Your task to perform on an android device: Go to Android settings Image 0: 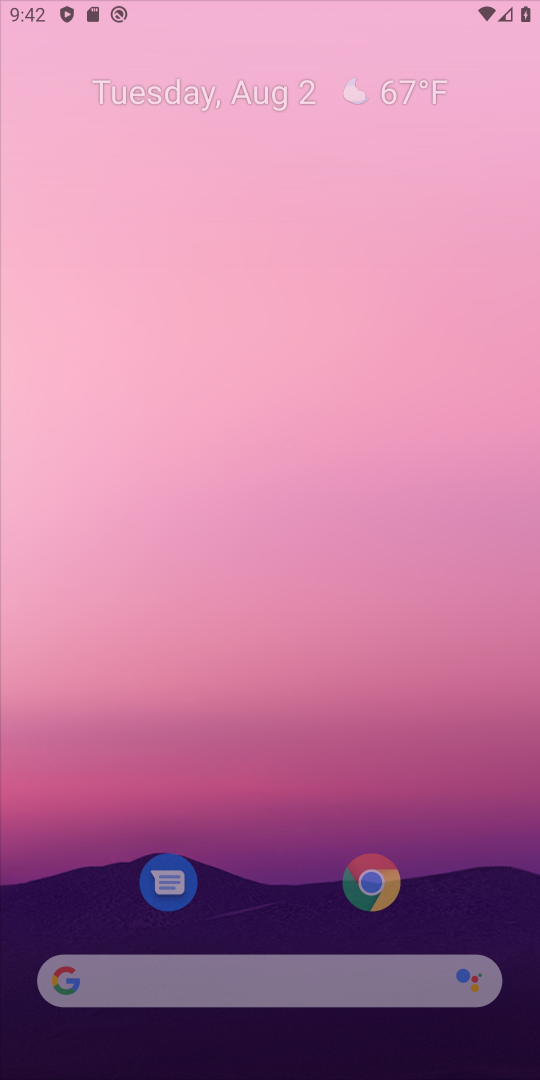
Step 0: press home button
Your task to perform on an android device: Go to Android settings Image 1: 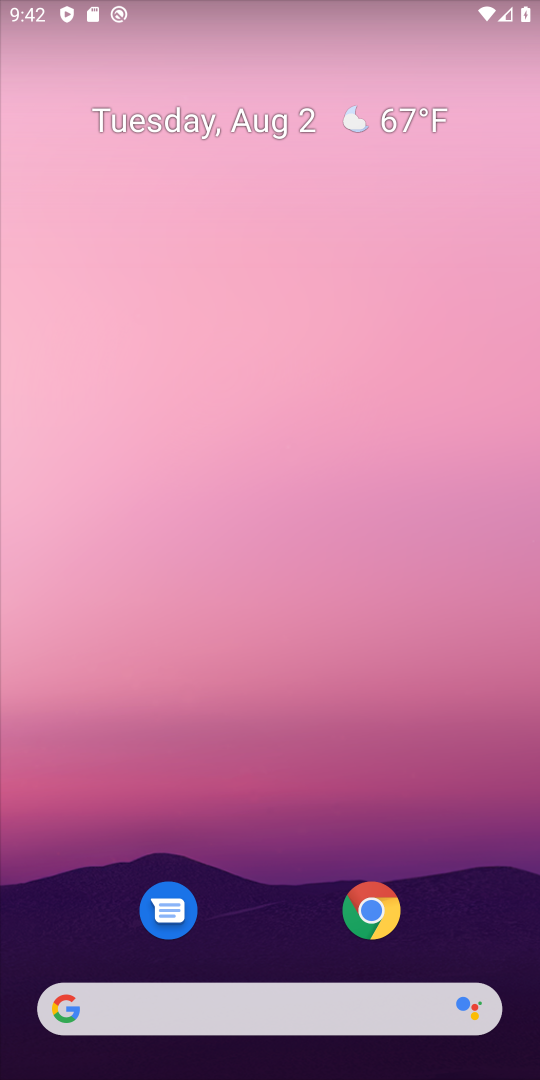
Step 1: drag from (259, 774) to (327, 193)
Your task to perform on an android device: Go to Android settings Image 2: 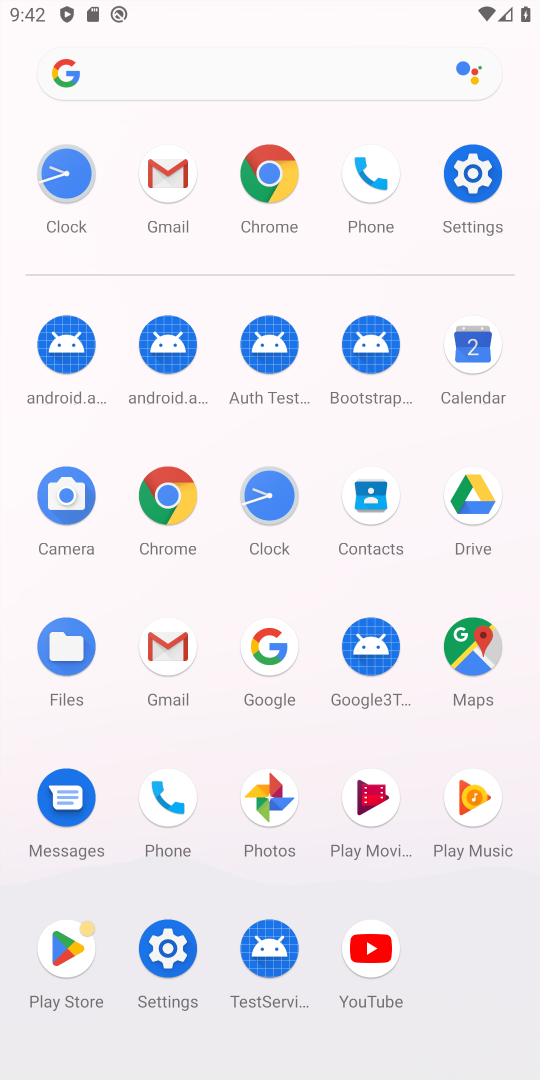
Step 2: click (466, 173)
Your task to perform on an android device: Go to Android settings Image 3: 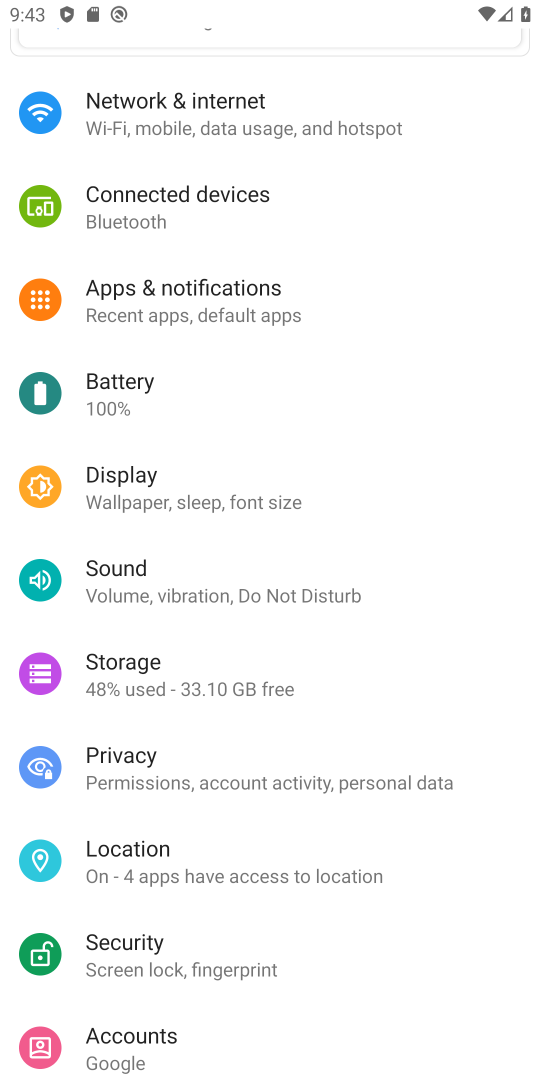
Step 3: task complete